Your task to perform on an android device: turn on wifi Image 0: 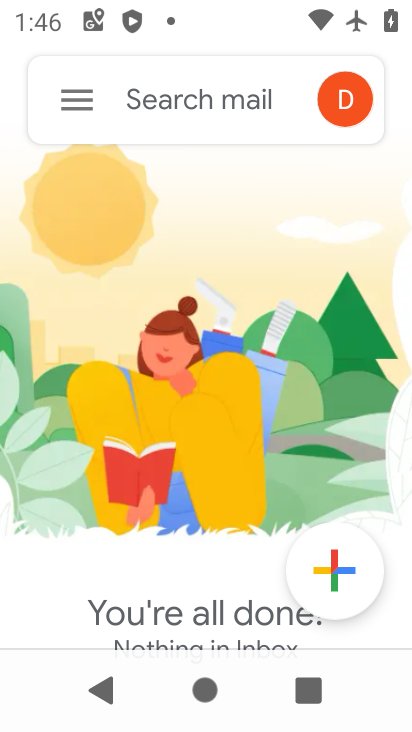
Step 0: press home button
Your task to perform on an android device: turn on wifi Image 1: 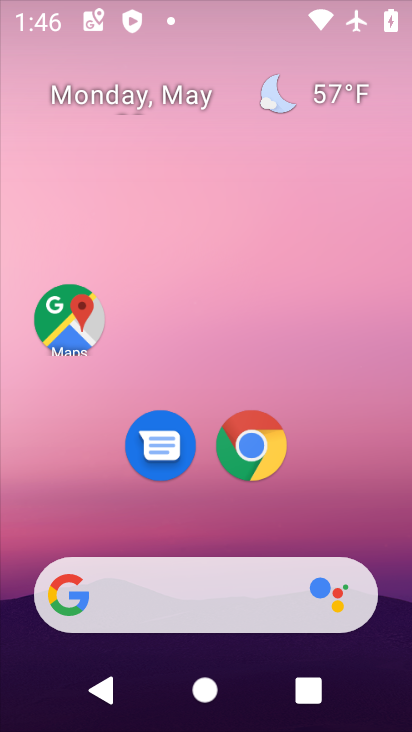
Step 1: drag from (233, 528) to (227, 69)
Your task to perform on an android device: turn on wifi Image 2: 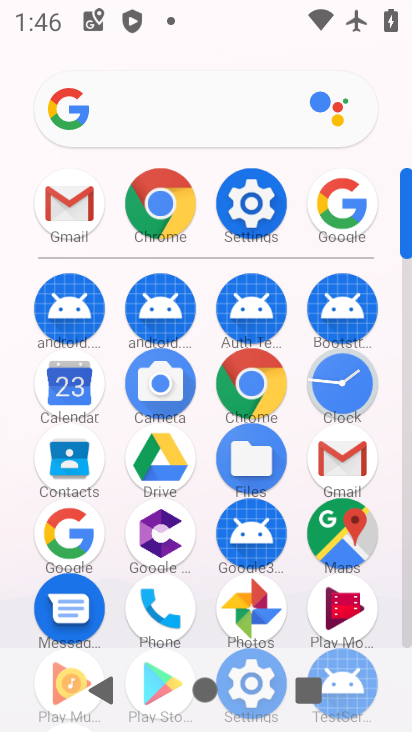
Step 2: click (251, 247)
Your task to perform on an android device: turn on wifi Image 3: 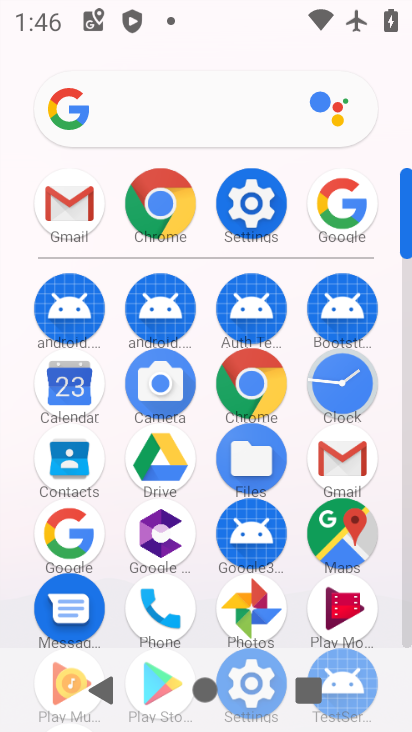
Step 3: click (261, 182)
Your task to perform on an android device: turn on wifi Image 4: 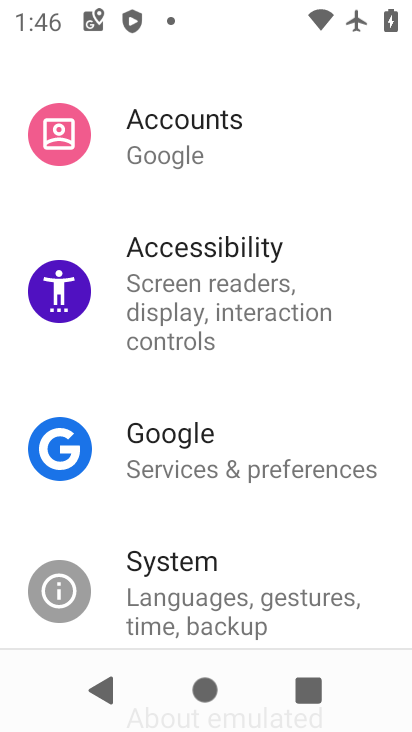
Step 4: drag from (178, 133) to (285, 664)
Your task to perform on an android device: turn on wifi Image 5: 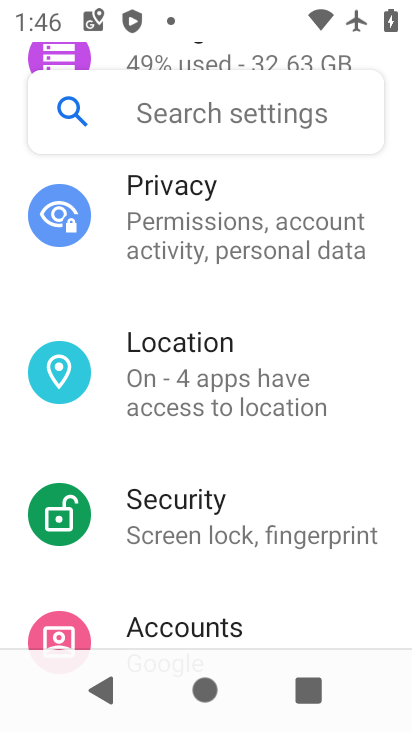
Step 5: drag from (154, 203) to (234, 722)
Your task to perform on an android device: turn on wifi Image 6: 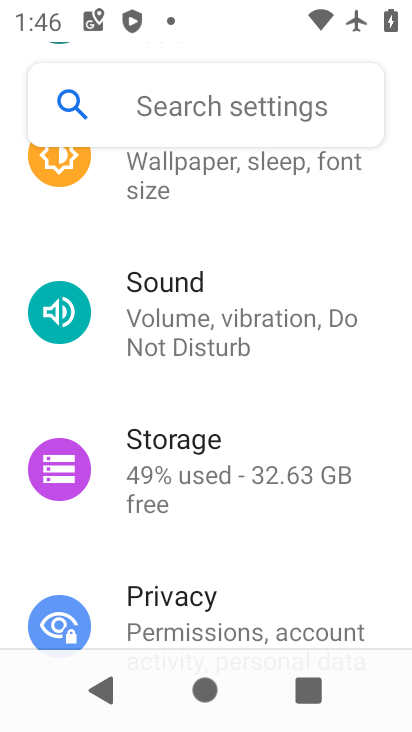
Step 6: drag from (109, 221) to (259, 674)
Your task to perform on an android device: turn on wifi Image 7: 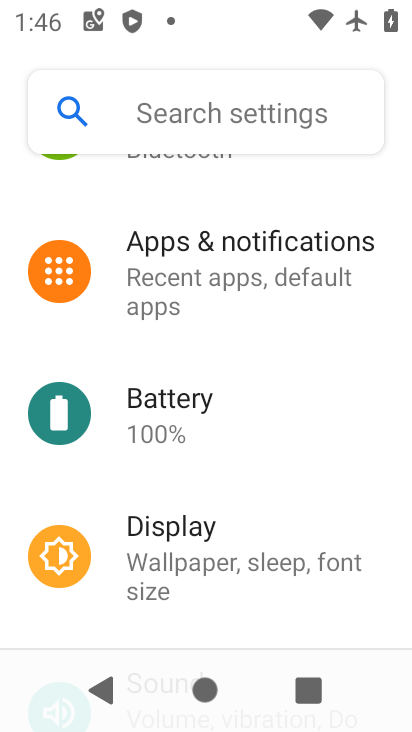
Step 7: drag from (151, 220) to (101, 636)
Your task to perform on an android device: turn on wifi Image 8: 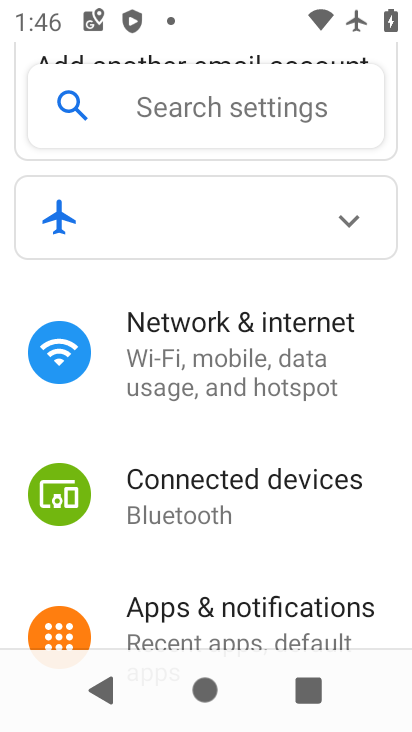
Step 8: click (200, 354)
Your task to perform on an android device: turn on wifi Image 9: 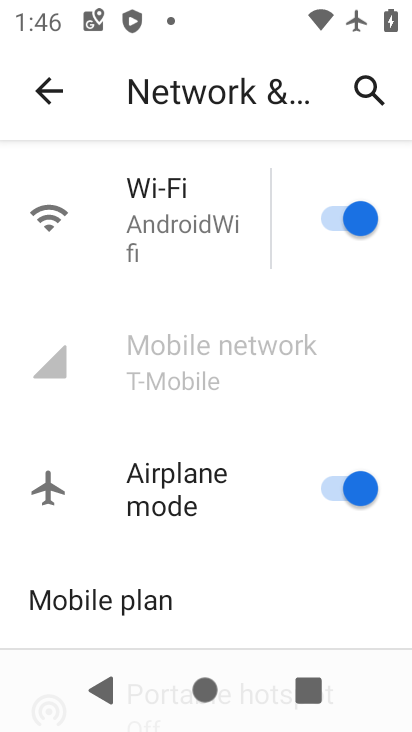
Step 9: task complete